Your task to perform on an android device: all mails in gmail Image 0: 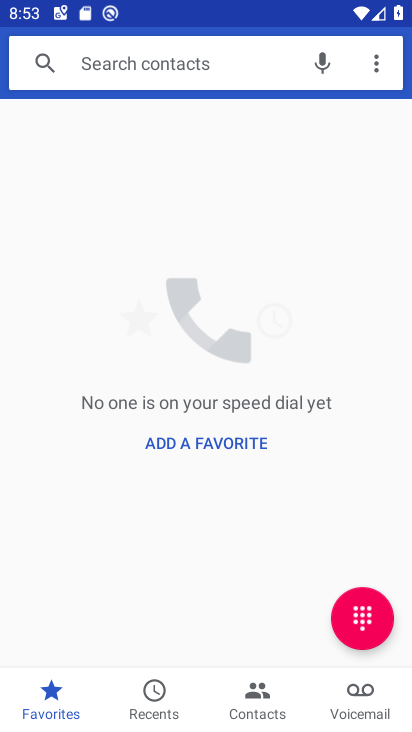
Step 0: press home button
Your task to perform on an android device: all mails in gmail Image 1: 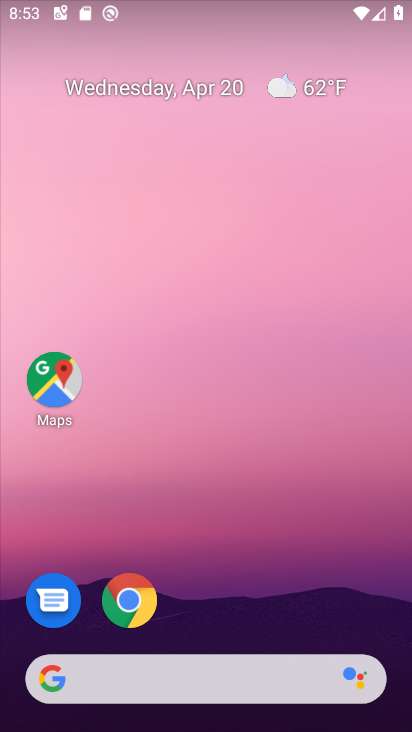
Step 1: drag from (240, 583) to (260, 59)
Your task to perform on an android device: all mails in gmail Image 2: 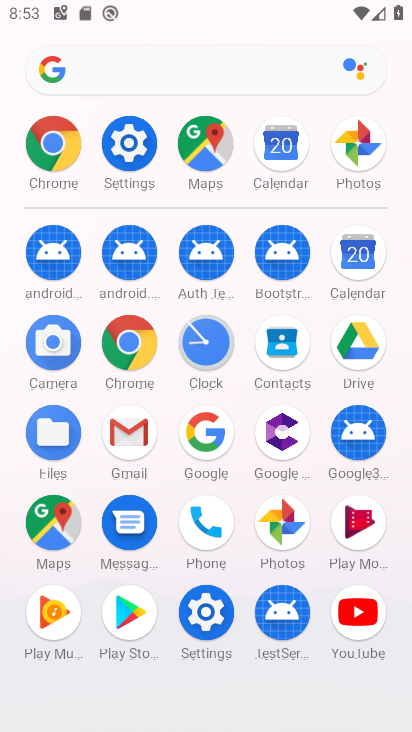
Step 2: click (127, 432)
Your task to perform on an android device: all mails in gmail Image 3: 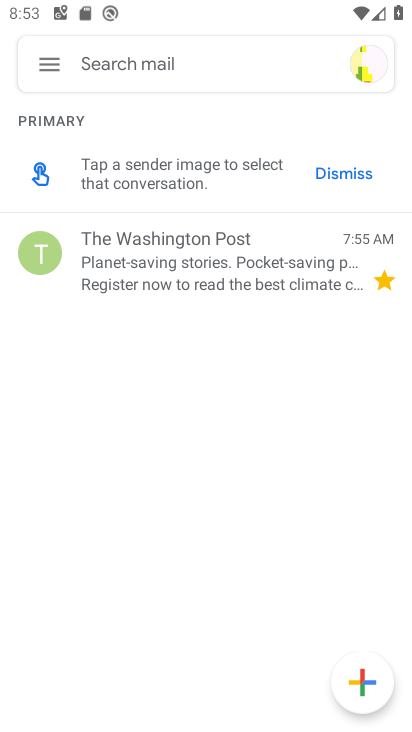
Step 3: click (46, 65)
Your task to perform on an android device: all mails in gmail Image 4: 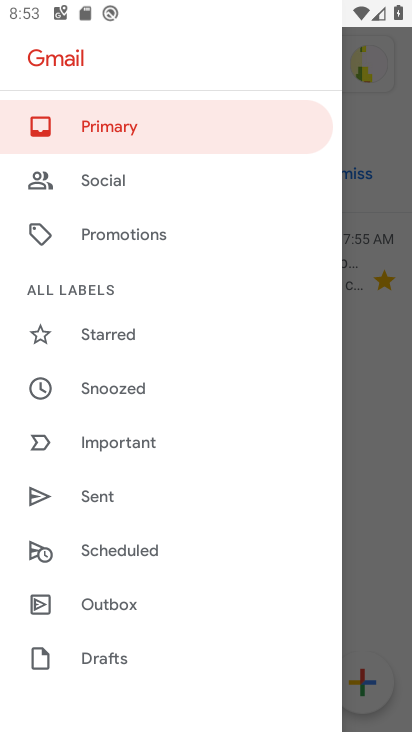
Step 4: drag from (202, 454) to (191, 208)
Your task to perform on an android device: all mails in gmail Image 5: 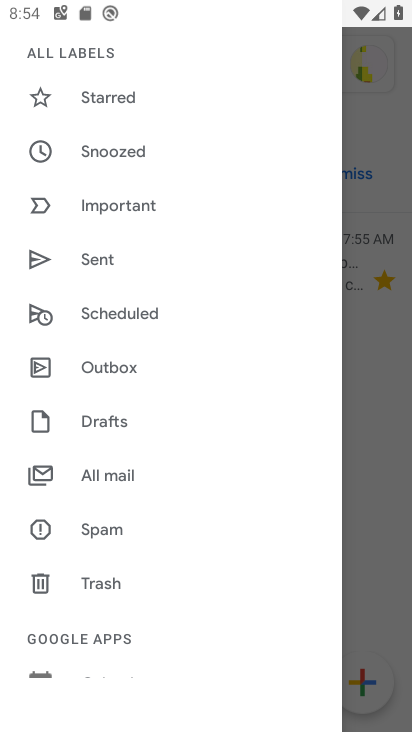
Step 5: click (140, 477)
Your task to perform on an android device: all mails in gmail Image 6: 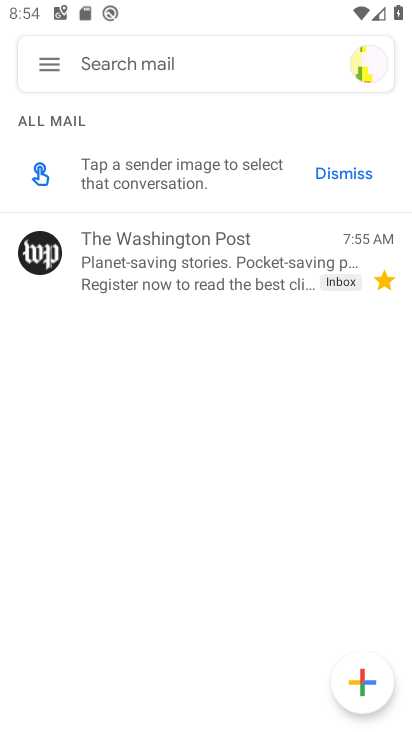
Step 6: task complete